Your task to perform on an android device: turn notification dots off Image 0: 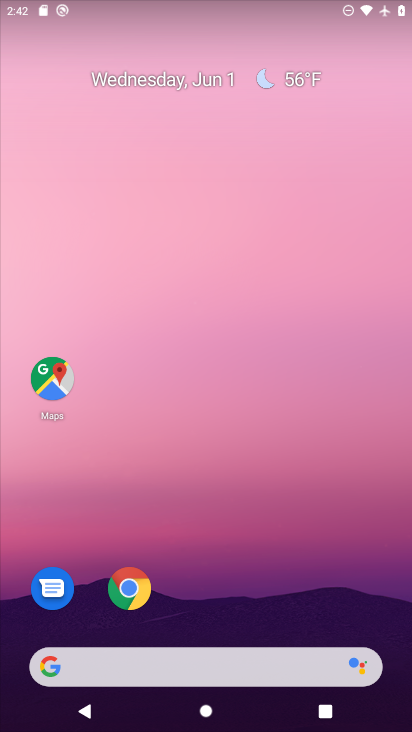
Step 0: drag from (264, 76) to (152, 40)
Your task to perform on an android device: turn notification dots off Image 1: 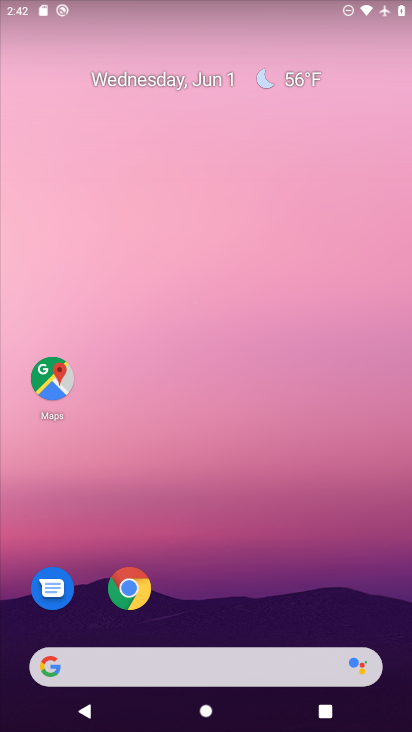
Step 1: drag from (222, 539) to (238, 8)
Your task to perform on an android device: turn notification dots off Image 2: 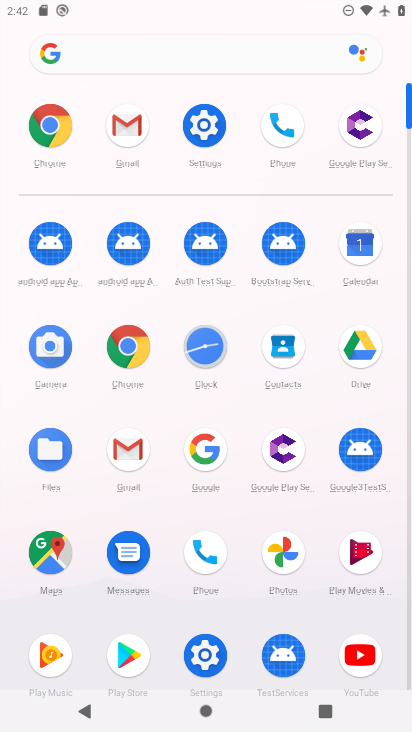
Step 2: click (209, 124)
Your task to perform on an android device: turn notification dots off Image 3: 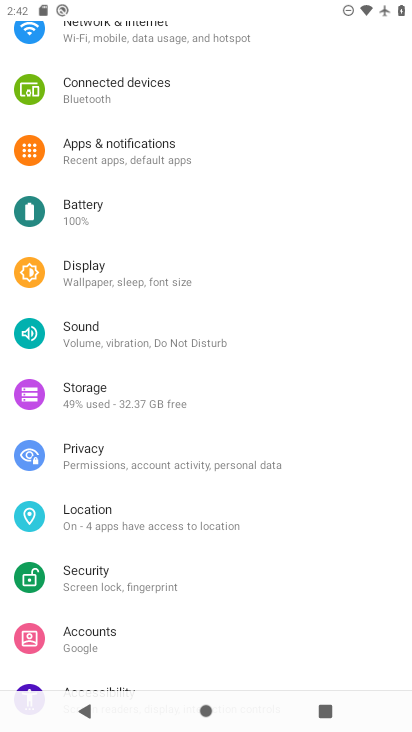
Step 3: click (198, 145)
Your task to perform on an android device: turn notification dots off Image 4: 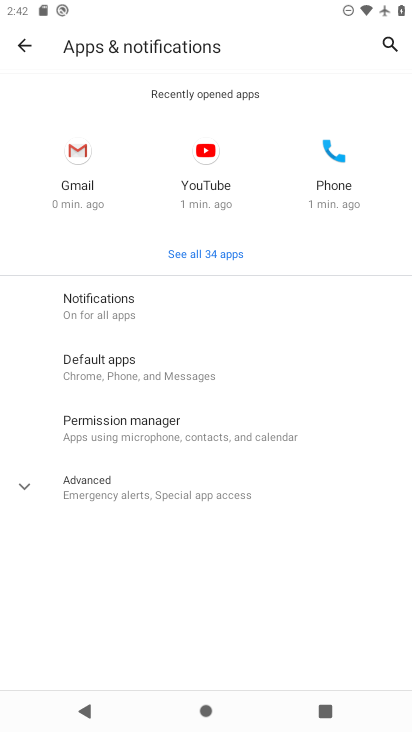
Step 4: click (230, 302)
Your task to perform on an android device: turn notification dots off Image 5: 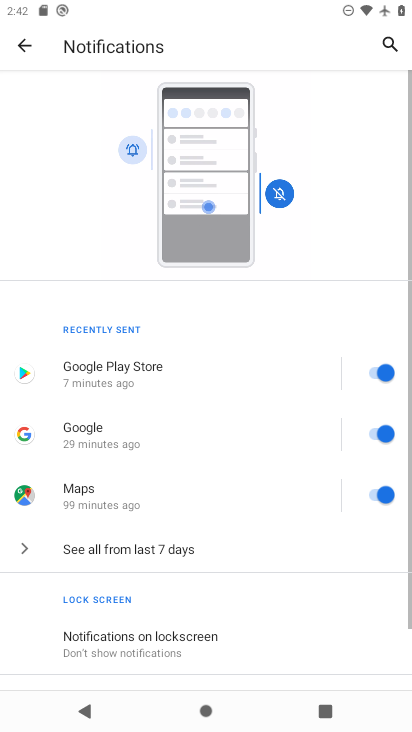
Step 5: drag from (282, 583) to (288, 92)
Your task to perform on an android device: turn notification dots off Image 6: 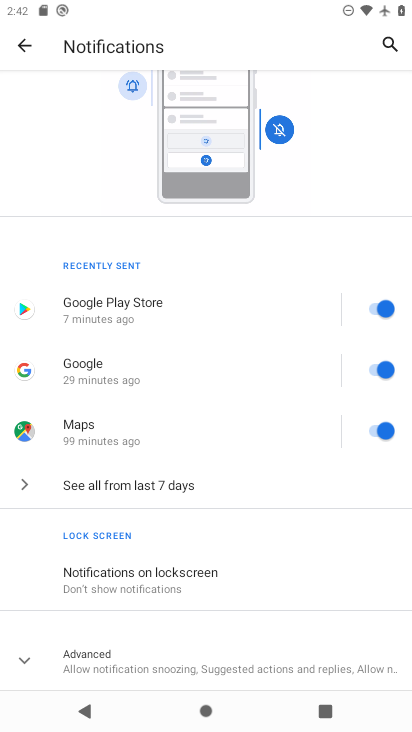
Step 6: click (206, 661)
Your task to perform on an android device: turn notification dots off Image 7: 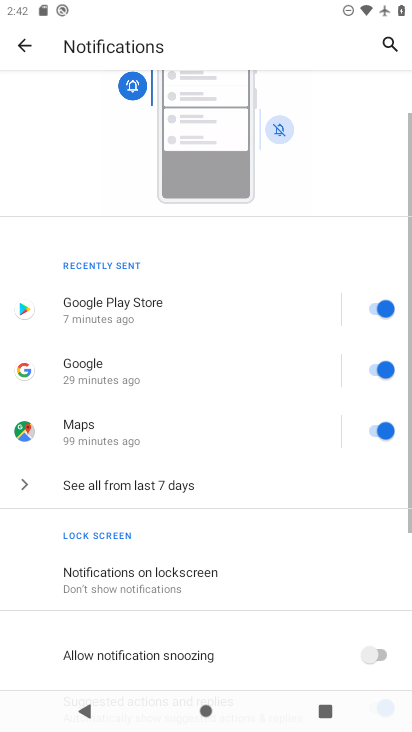
Step 7: drag from (269, 589) to (294, 120)
Your task to perform on an android device: turn notification dots off Image 8: 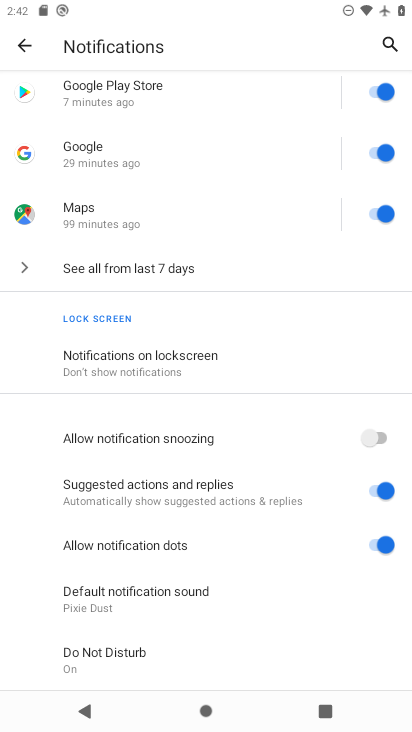
Step 8: click (379, 552)
Your task to perform on an android device: turn notification dots off Image 9: 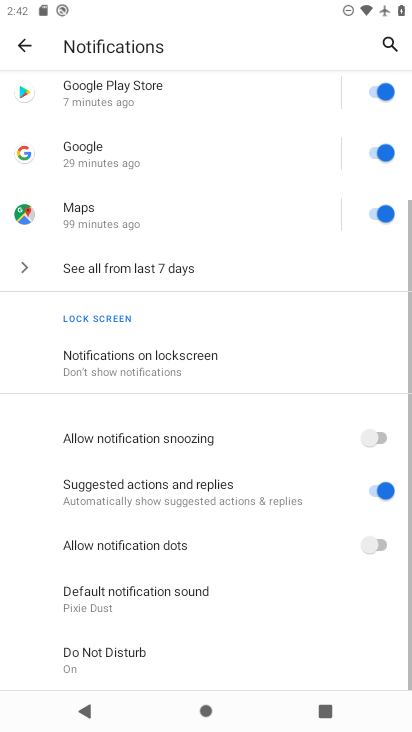
Step 9: task complete